Your task to perform on an android device: toggle improve location accuracy Image 0: 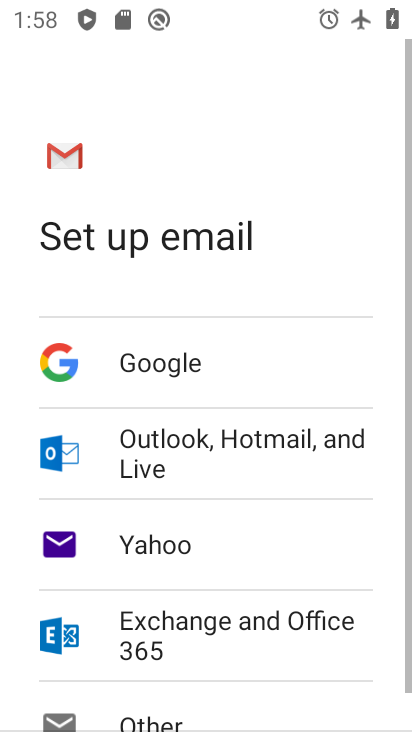
Step 0: press home button
Your task to perform on an android device: toggle improve location accuracy Image 1: 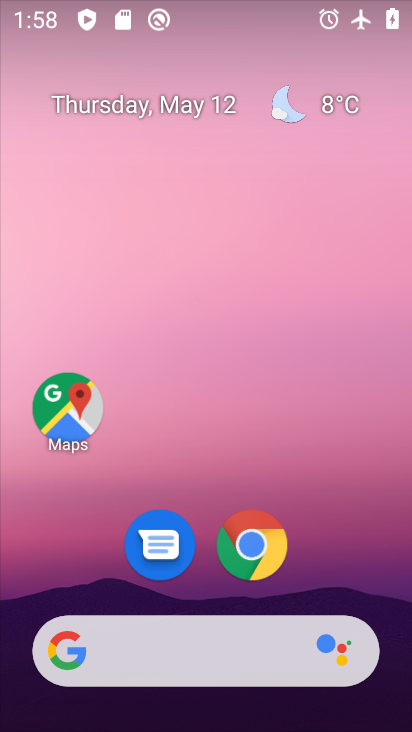
Step 1: drag from (396, 650) to (344, 165)
Your task to perform on an android device: toggle improve location accuracy Image 2: 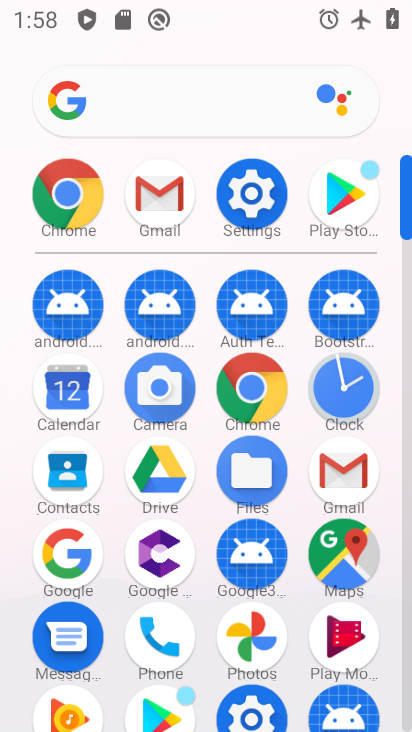
Step 2: click (407, 699)
Your task to perform on an android device: toggle improve location accuracy Image 3: 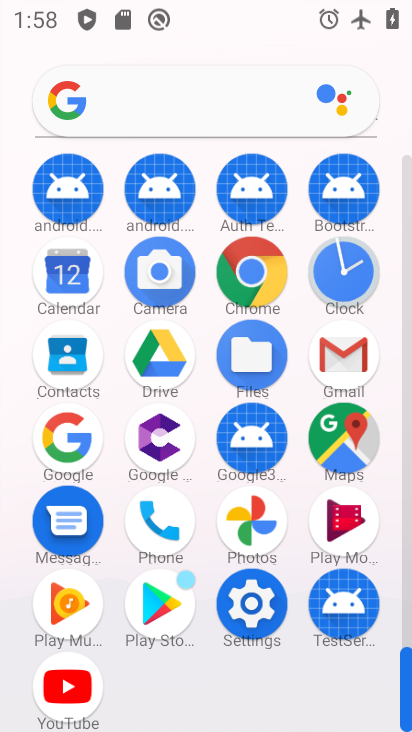
Step 3: click (252, 602)
Your task to perform on an android device: toggle improve location accuracy Image 4: 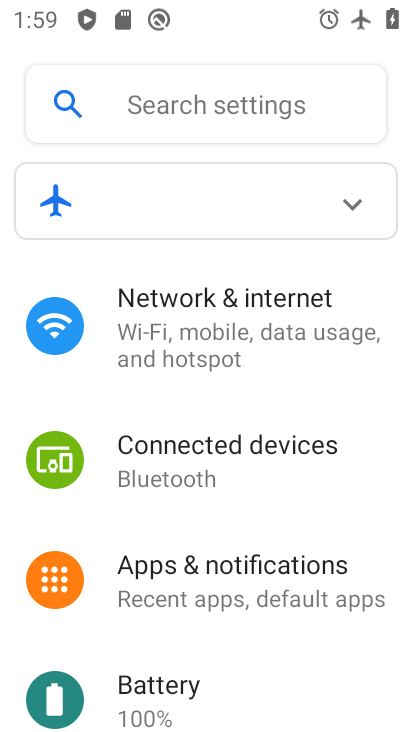
Step 4: drag from (352, 665) to (273, 212)
Your task to perform on an android device: toggle improve location accuracy Image 5: 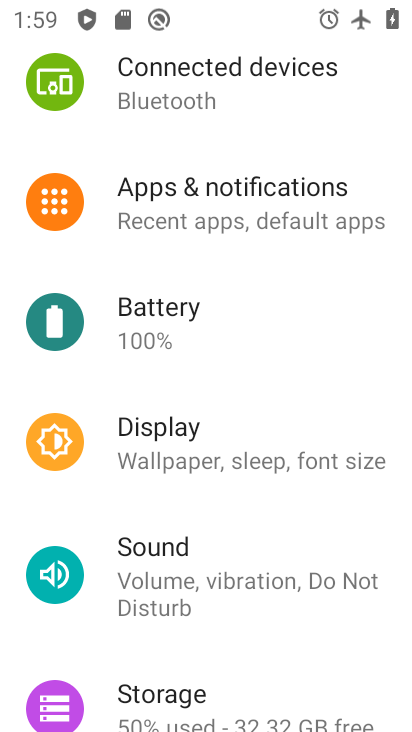
Step 5: drag from (312, 615) to (324, 236)
Your task to perform on an android device: toggle improve location accuracy Image 6: 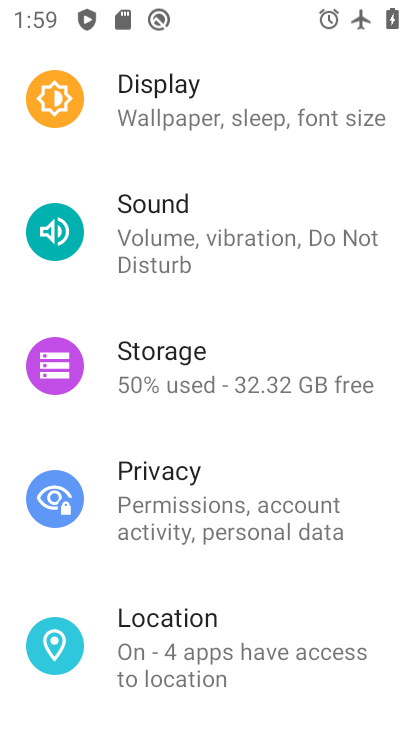
Step 6: drag from (281, 583) to (278, 241)
Your task to perform on an android device: toggle improve location accuracy Image 7: 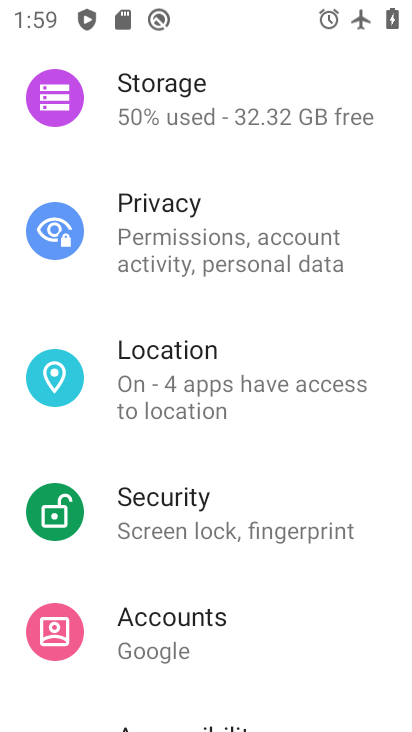
Step 7: click (167, 380)
Your task to perform on an android device: toggle improve location accuracy Image 8: 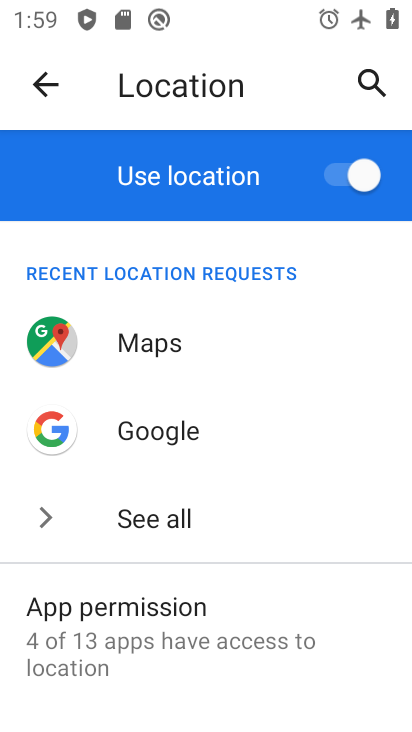
Step 8: drag from (285, 581) to (278, 144)
Your task to perform on an android device: toggle improve location accuracy Image 9: 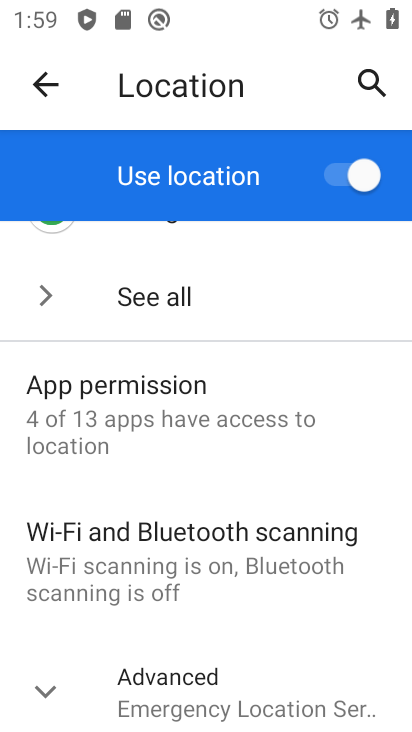
Step 9: click (30, 697)
Your task to perform on an android device: toggle improve location accuracy Image 10: 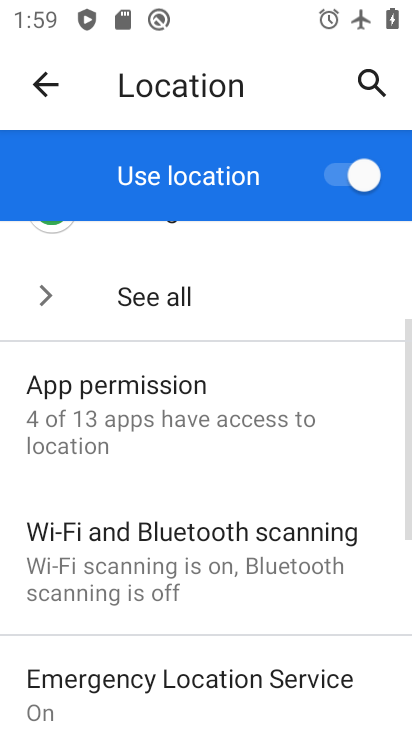
Step 10: drag from (207, 693) to (242, 156)
Your task to perform on an android device: toggle improve location accuracy Image 11: 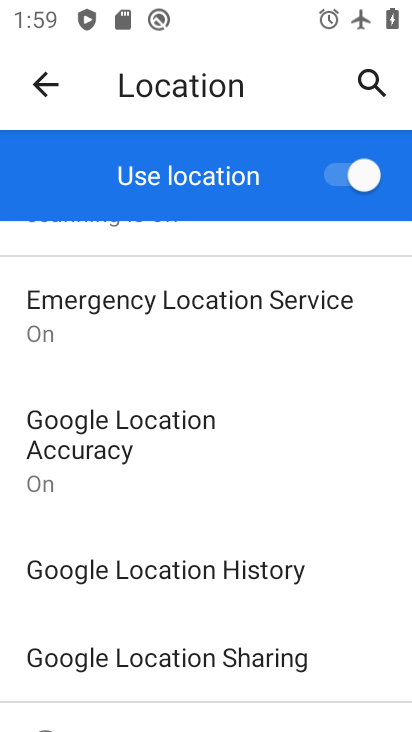
Step 11: click (80, 453)
Your task to perform on an android device: toggle improve location accuracy Image 12: 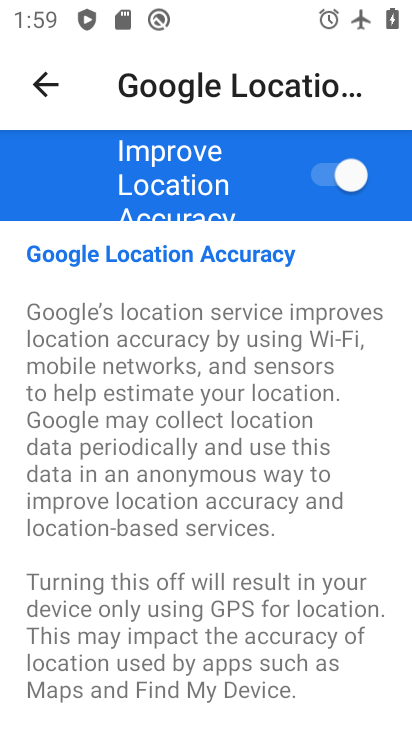
Step 12: click (320, 173)
Your task to perform on an android device: toggle improve location accuracy Image 13: 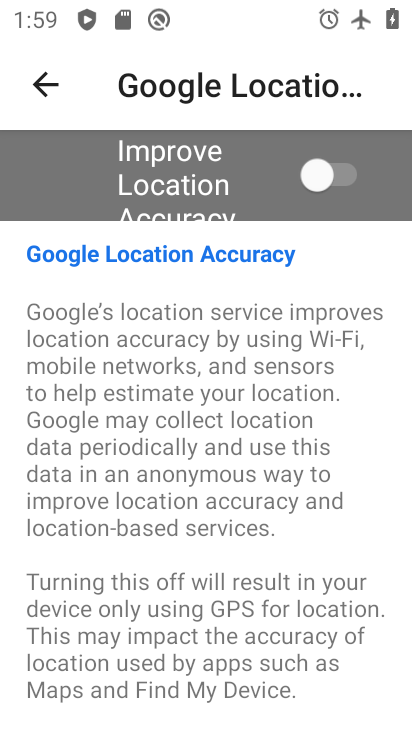
Step 13: task complete